Your task to perform on an android device: change keyboard looks Image 0: 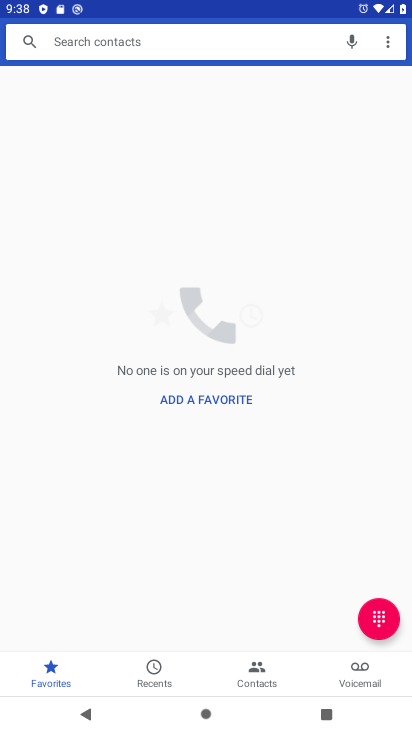
Step 0: press back button
Your task to perform on an android device: change keyboard looks Image 1: 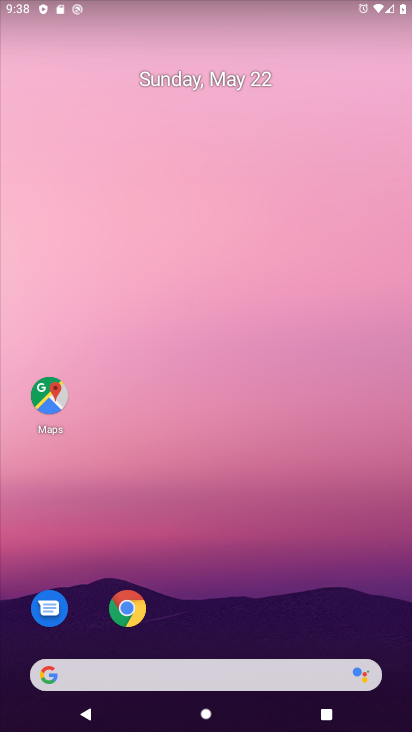
Step 1: drag from (274, 603) to (199, 60)
Your task to perform on an android device: change keyboard looks Image 2: 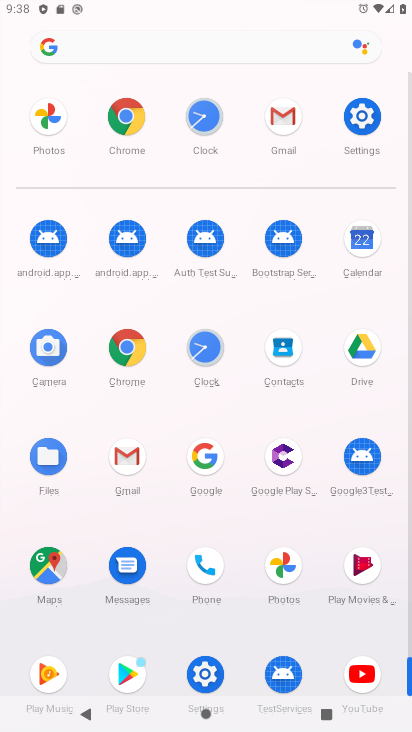
Step 2: drag from (9, 536) to (19, 249)
Your task to perform on an android device: change keyboard looks Image 3: 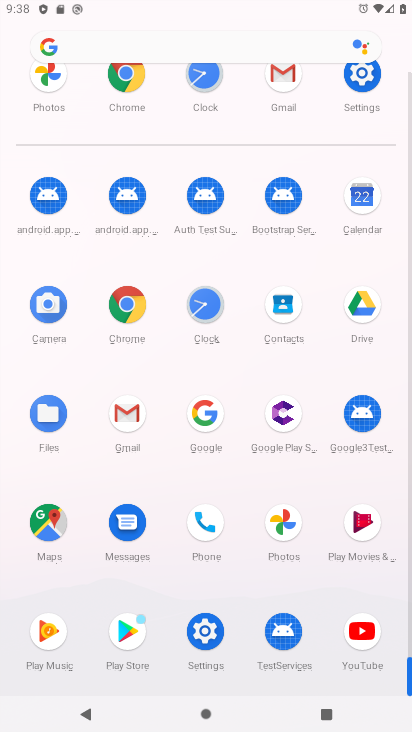
Step 3: click (206, 626)
Your task to perform on an android device: change keyboard looks Image 4: 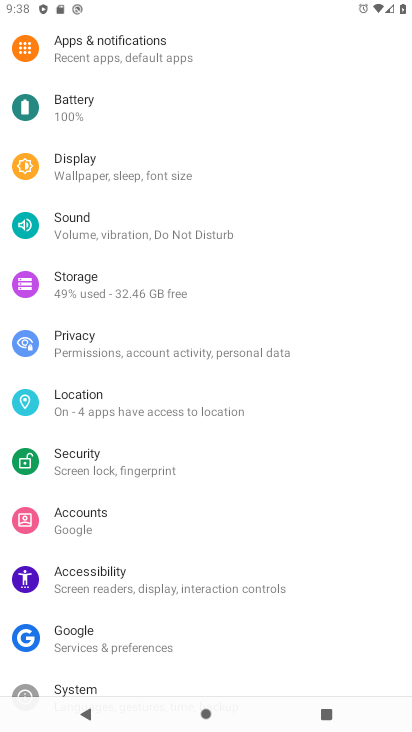
Step 4: drag from (234, 152) to (254, 546)
Your task to perform on an android device: change keyboard looks Image 5: 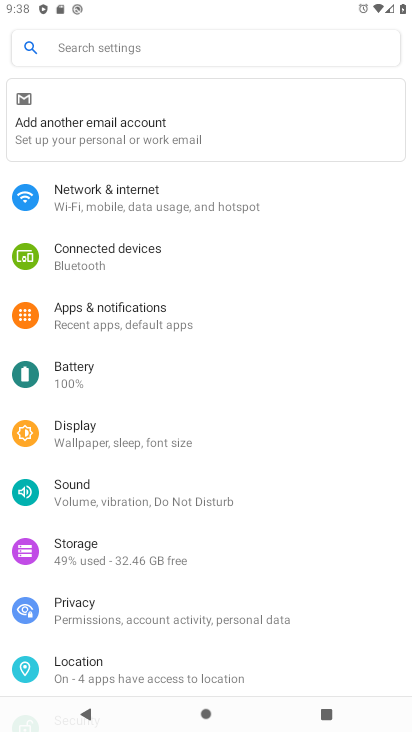
Step 5: drag from (212, 423) to (212, 92)
Your task to perform on an android device: change keyboard looks Image 6: 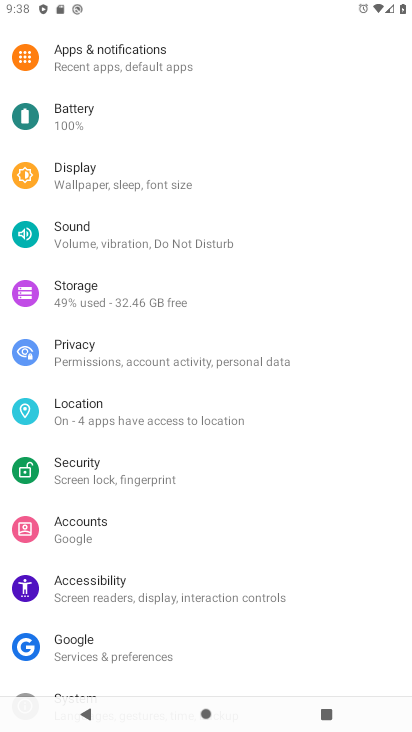
Step 6: drag from (183, 592) to (172, 151)
Your task to perform on an android device: change keyboard looks Image 7: 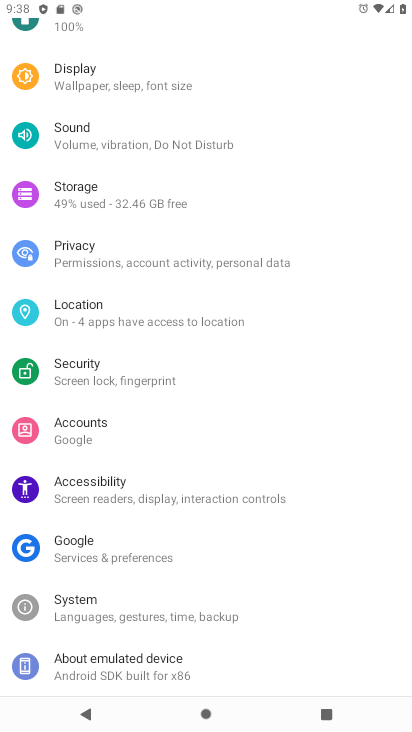
Step 7: click (119, 598)
Your task to perform on an android device: change keyboard looks Image 8: 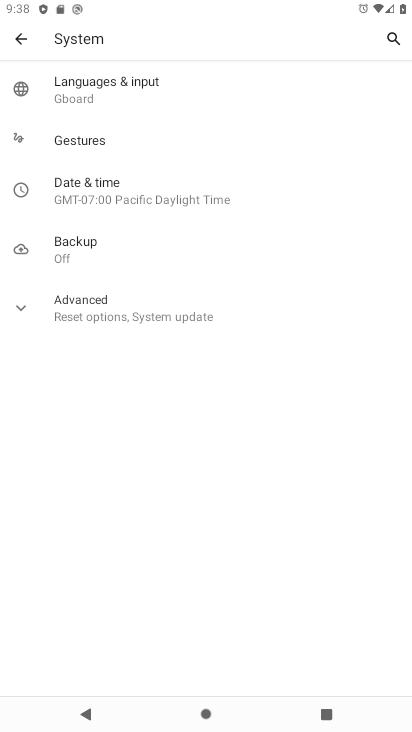
Step 8: click (66, 315)
Your task to perform on an android device: change keyboard looks Image 9: 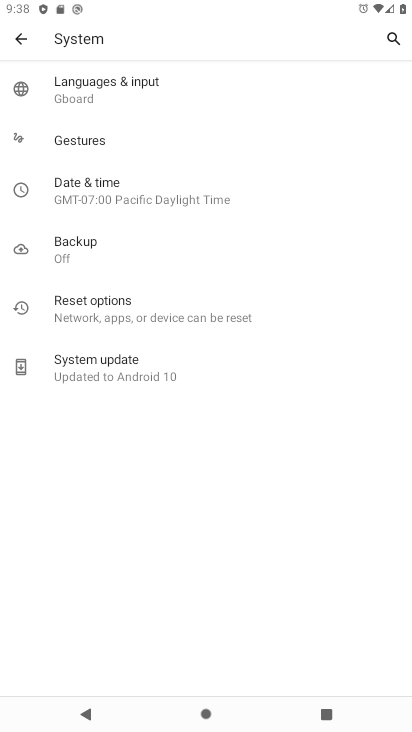
Step 9: click (99, 90)
Your task to perform on an android device: change keyboard looks Image 10: 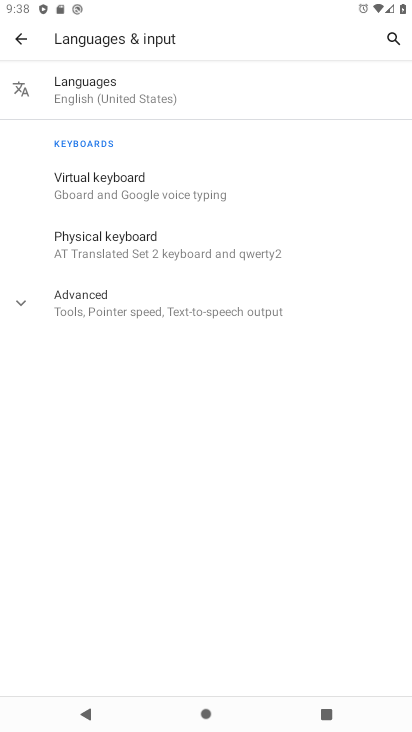
Step 10: click (44, 309)
Your task to perform on an android device: change keyboard looks Image 11: 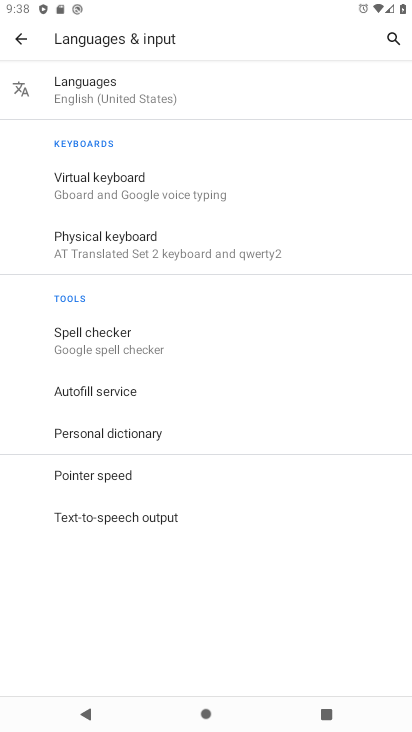
Step 11: click (127, 193)
Your task to perform on an android device: change keyboard looks Image 12: 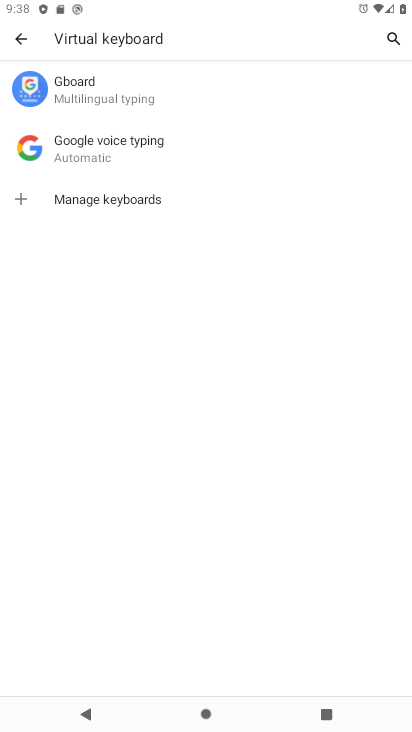
Step 12: click (139, 89)
Your task to perform on an android device: change keyboard looks Image 13: 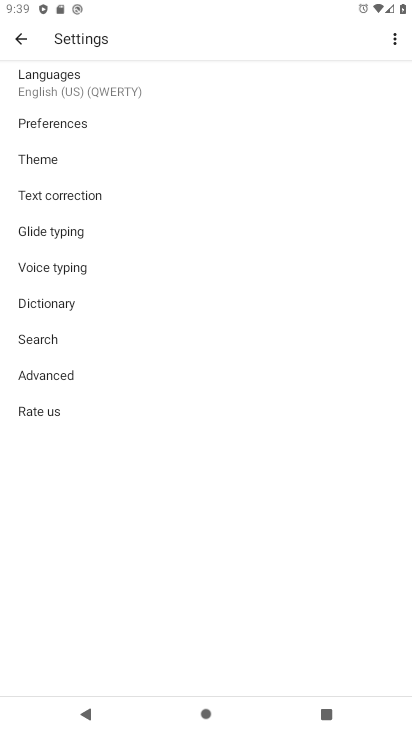
Step 13: click (62, 157)
Your task to perform on an android device: change keyboard looks Image 14: 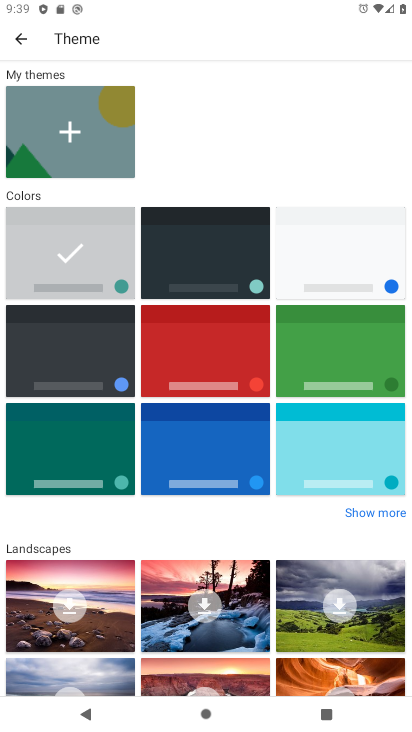
Step 14: click (191, 235)
Your task to perform on an android device: change keyboard looks Image 15: 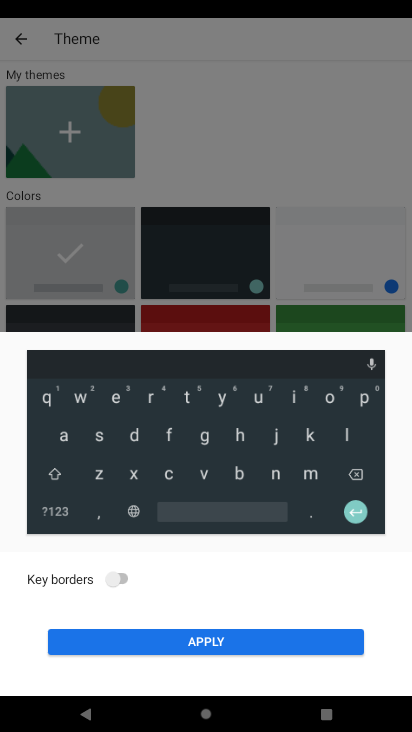
Step 15: click (225, 637)
Your task to perform on an android device: change keyboard looks Image 16: 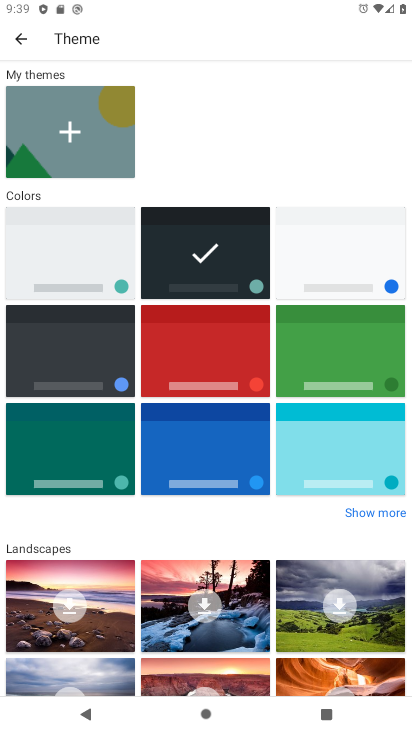
Step 16: task complete